Your task to perform on an android device: Open maps Image 0: 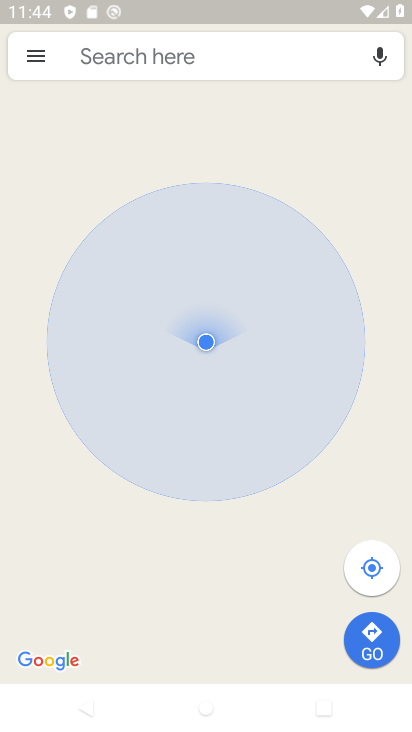
Step 0: task complete